Your task to perform on an android device: Go to Google maps Image 0: 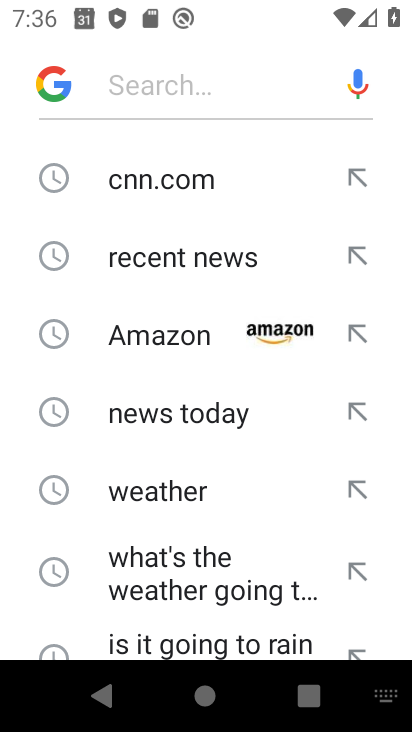
Step 0: press home button
Your task to perform on an android device: Go to Google maps Image 1: 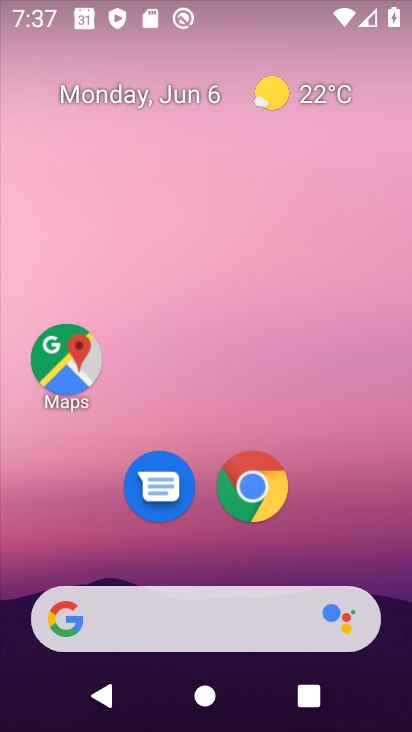
Step 1: drag from (393, 619) to (194, 22)
Your task to perform on an android device: Go to Google maps Image 2: 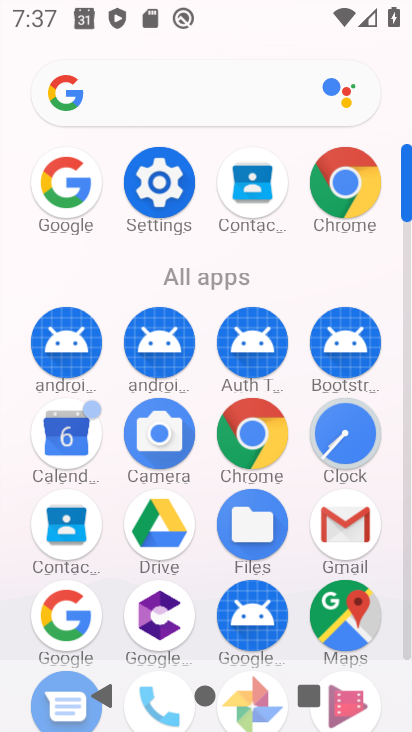
Step 2: click (356, 599)
Your task to perform on an android device: Go to Google maps Image 3: 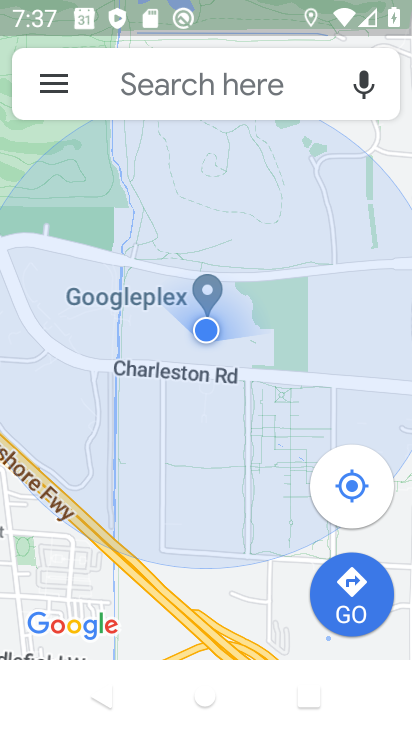
Step 3: task complete